Your task to perform on an android device: Open the contacts Image 0: 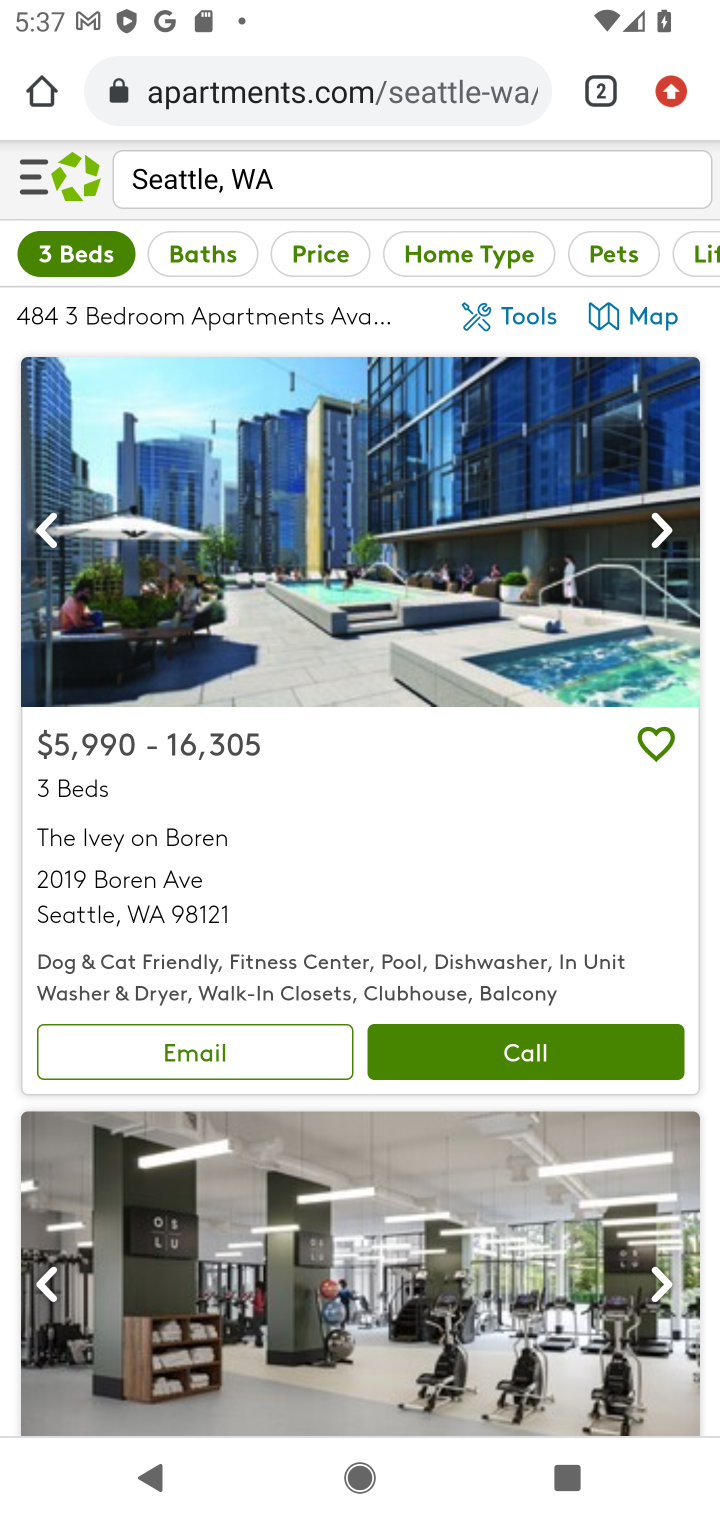
Step 0: press home button
Your task to perform on an android device: Open the contacts Image 1: 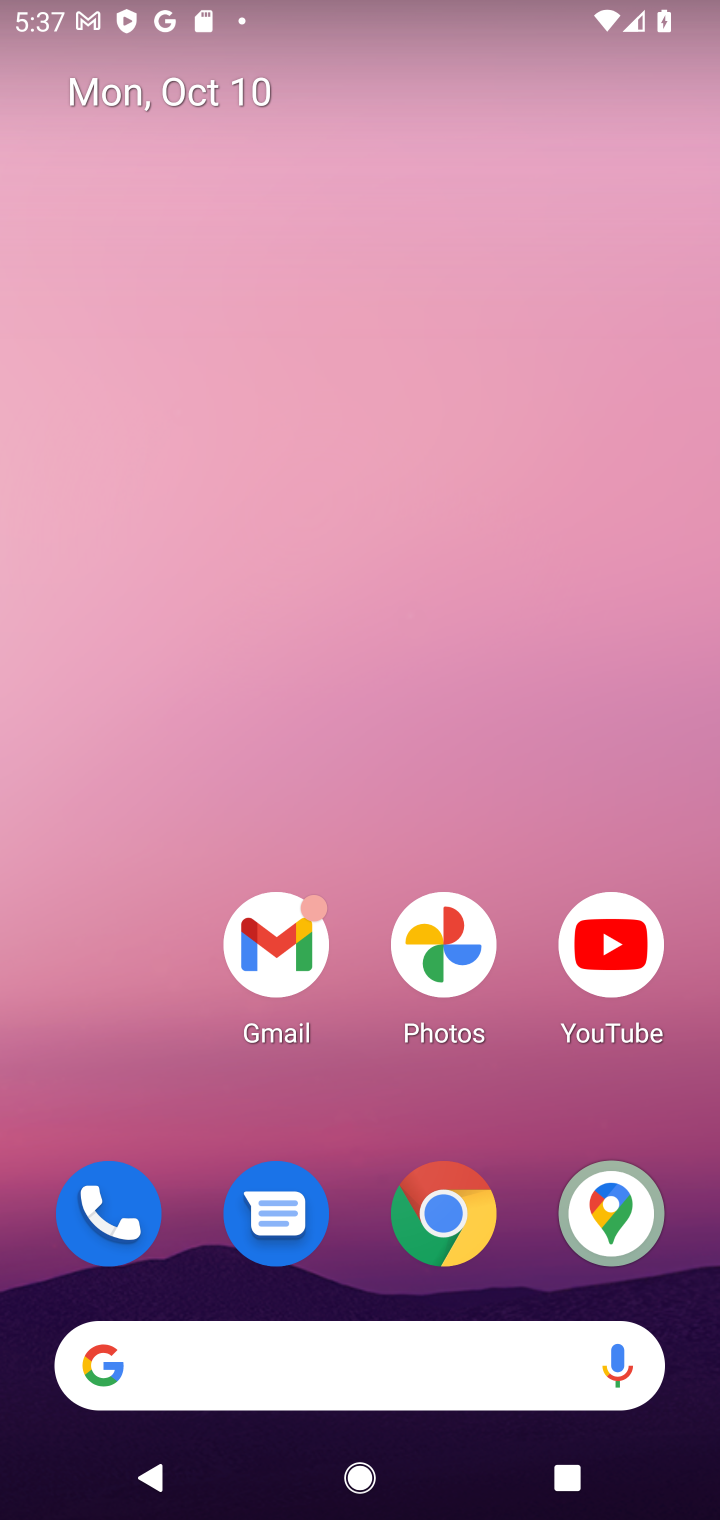
Step 1: drag from (383, 937) to (378, 253)
Your task to perform on an android device: Open the contacts Image 2: 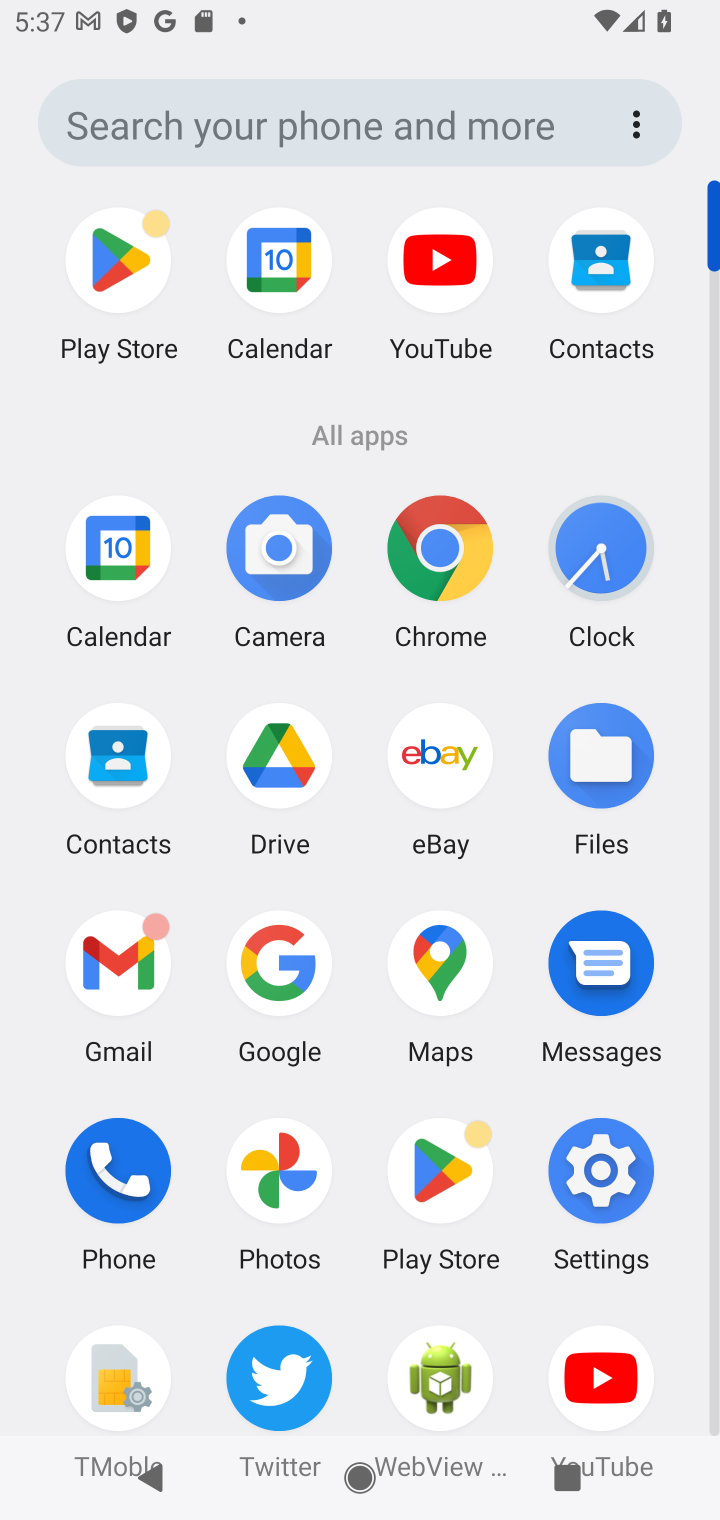
Step 2: click (616, 264)
Your task to perform on an android device: Open the contacts Image 3: 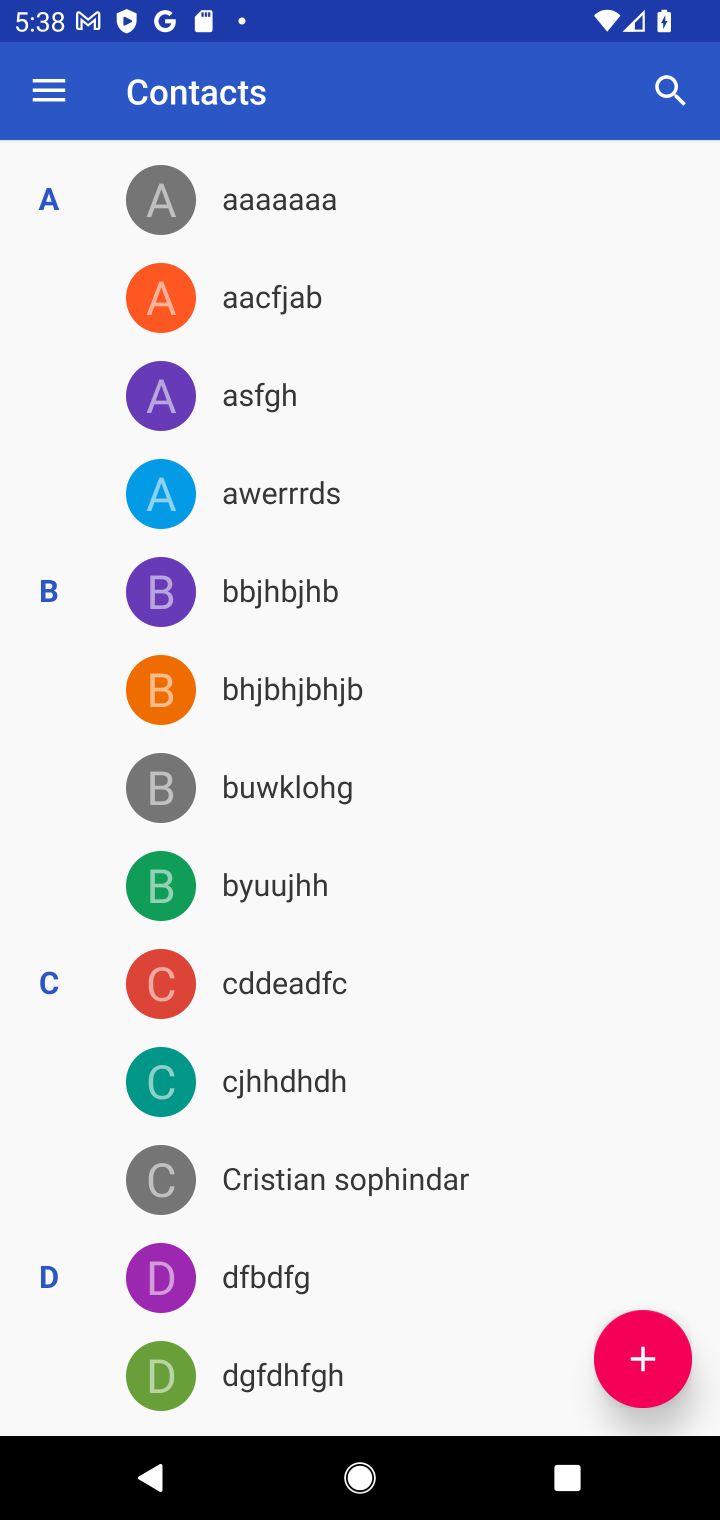
Step 3: task complete